Your task to perform on an android device: turn off smart reply in the gmail app Image 0: 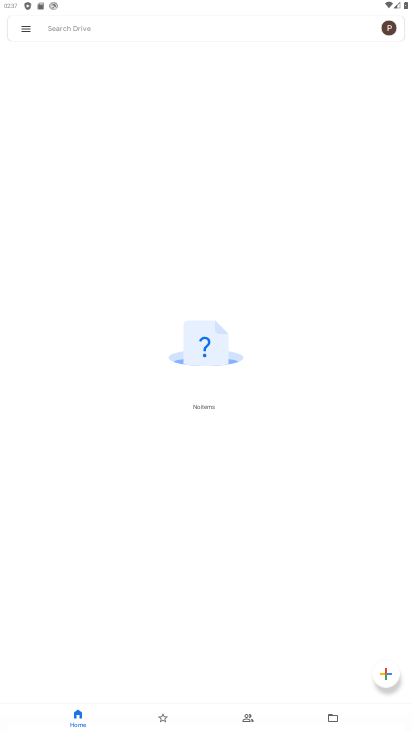
Step 0: press home button
Your task to perform on an android device: turn off smart reply in the gmail app Image 1: 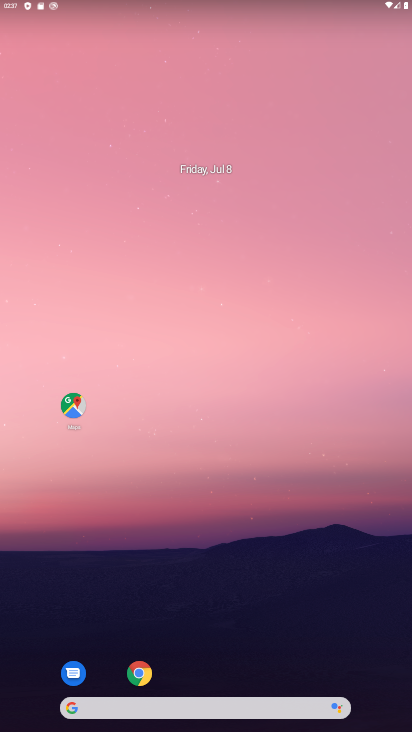
Step 1: drag from (215, 611) to (215, 45)
Your task to perform on an android device: turn off smart reply in the gmail app Image 2: 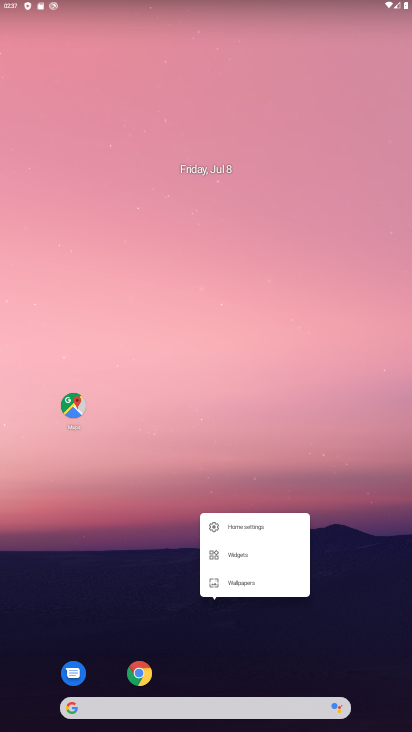
Step 2: click (252, 351)
Your task to perform on an android device: turn off smart reply in the gmail app Image 3: 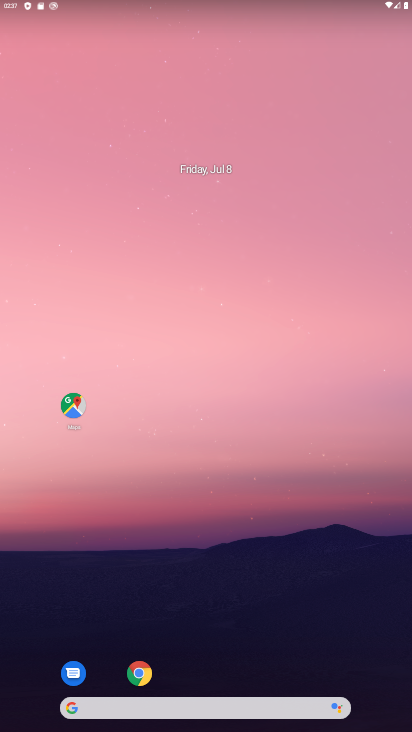
Step 3: drag from (290, 668) to (203, 169)
Your task to perform on an android device: turn off smart reply in the gmail app Image 4: 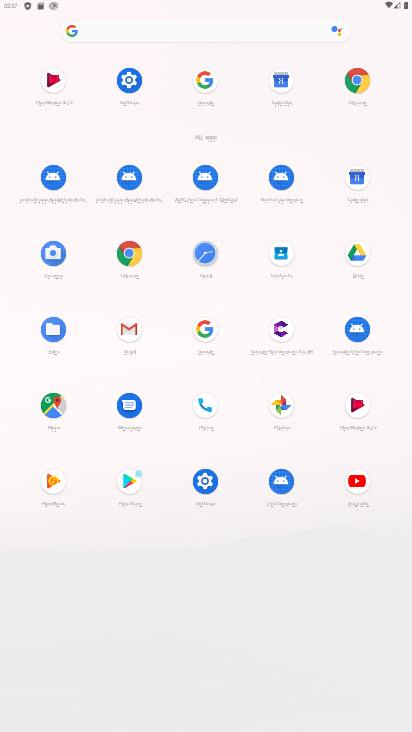
Step 4: click (125, 332)
Your task to perform on an android device: turn off smart reply in the gmail app Image 5: 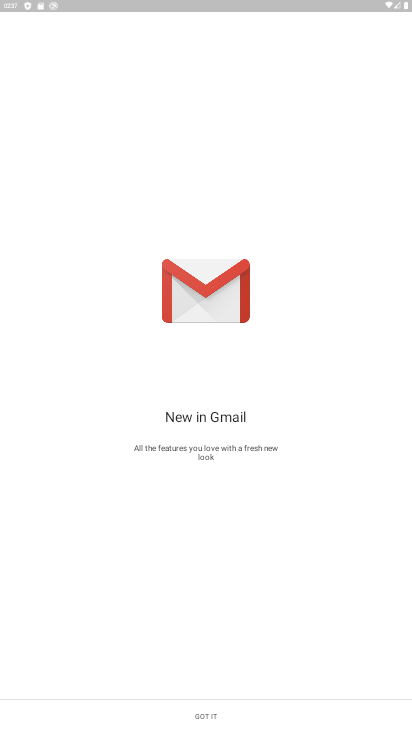
Step 5: click (218, 705)
Your task to perform on an android device: turn off smart reply in the gmail app Image 6: 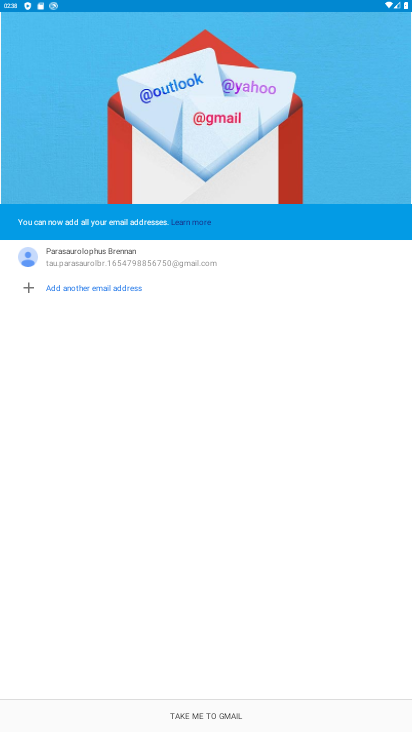
Step 6: click (185, 716)
Your task to perform on an android device: turn off smart reply in the gmail app Image 7: 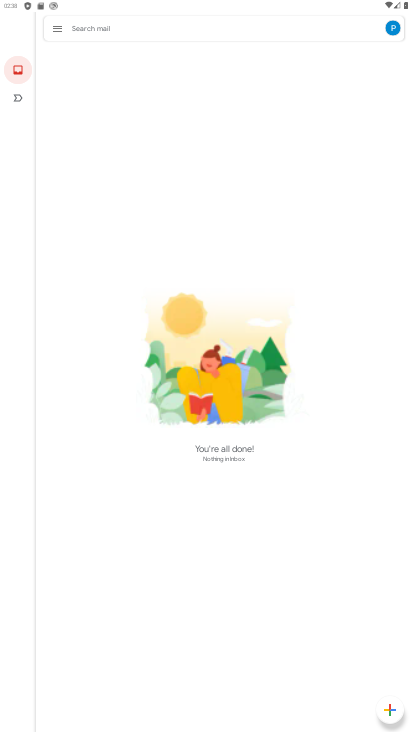
Step 7: click (53, 22)
Your task to perform on an android device: turn off smart reply in the gmail app Image 8: 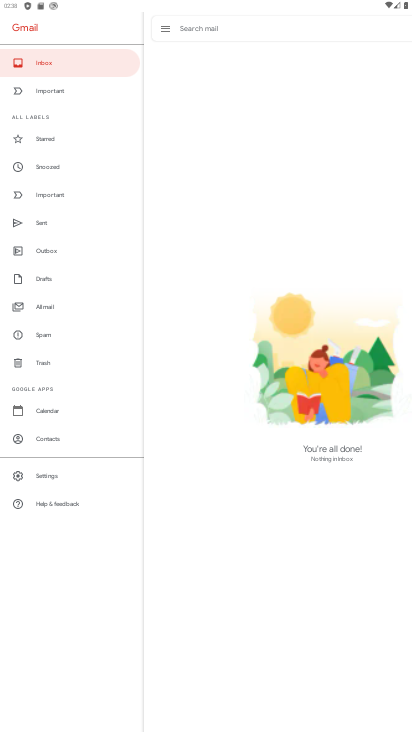
Step 8: click (52, 469)
Your task to perform on an android device: turn off smart reply in the gmail app Image 9: 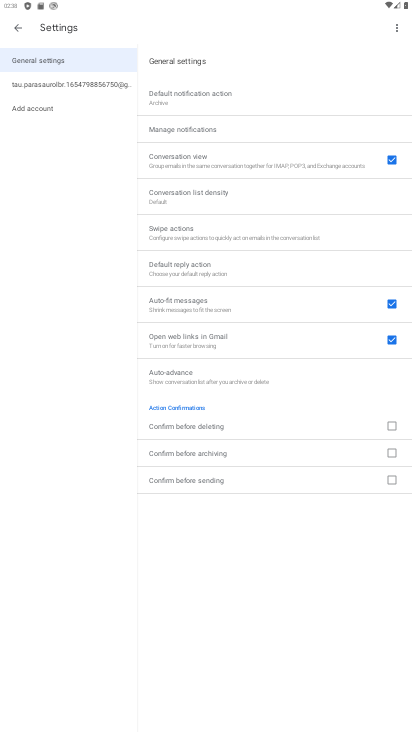
Step 9: click (115, 82)
Your task to perform on an android device: turn off smart reply in the gmail app Image 10: 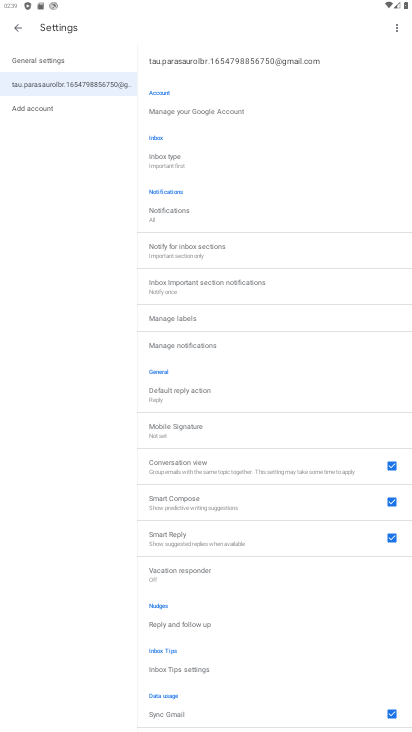
Step 10: click (393, 532)
Your task to perform on an android device: turn off smart reply in the gmail app Image 11: 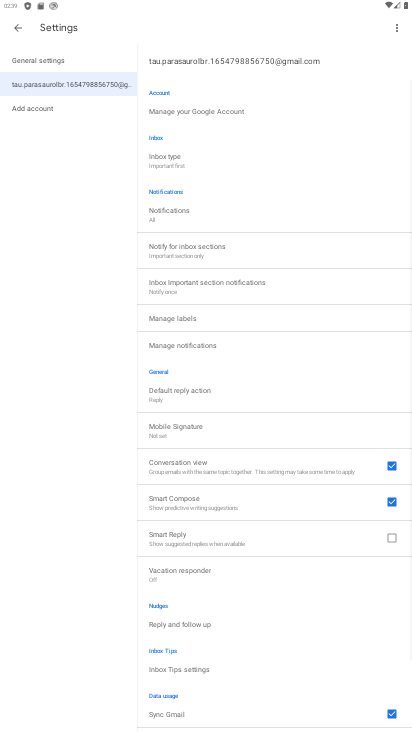
Step 11: task complete